Your task to perform on an android device: change the clock display to analog Image 0: 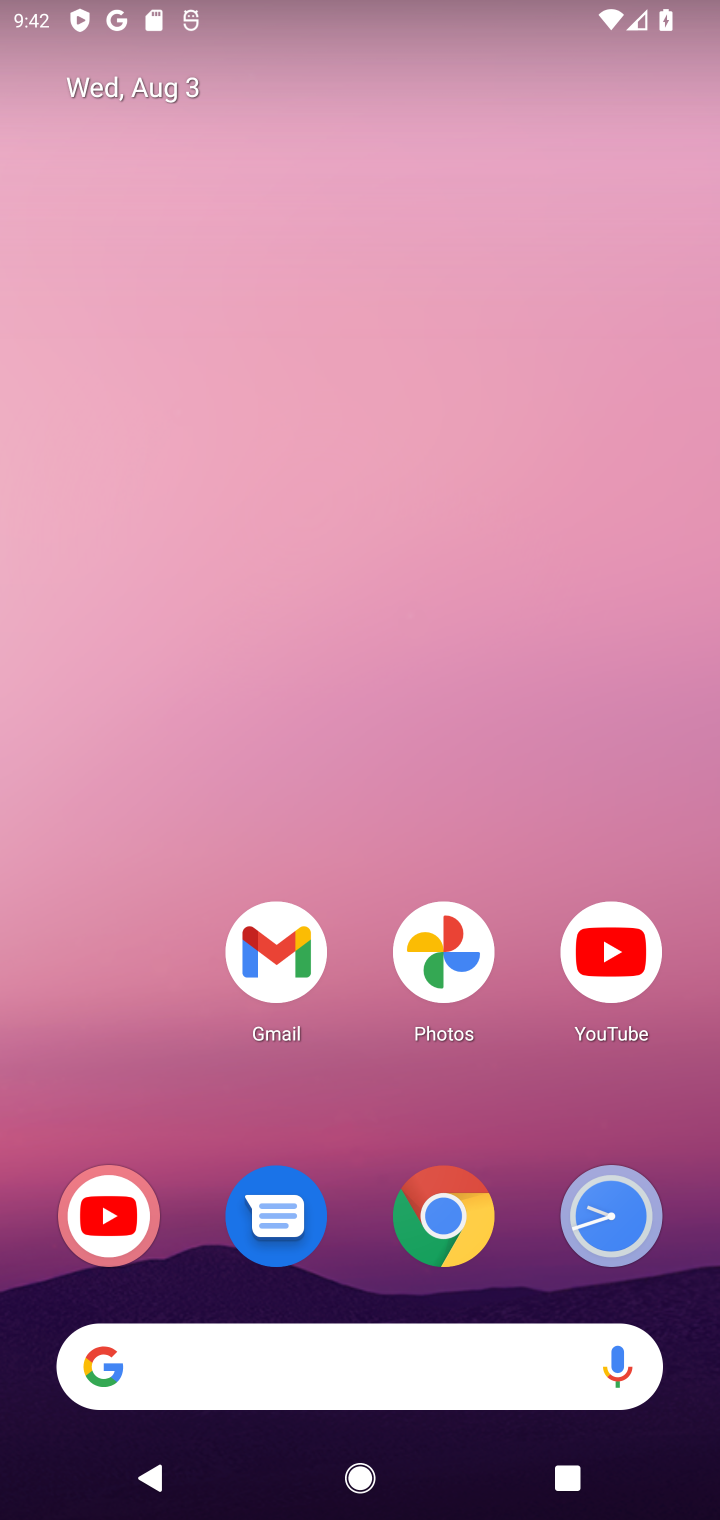
Step 0: click (595, 1205)
Your task to perform on an android device: change the clock display to analog Image 1: 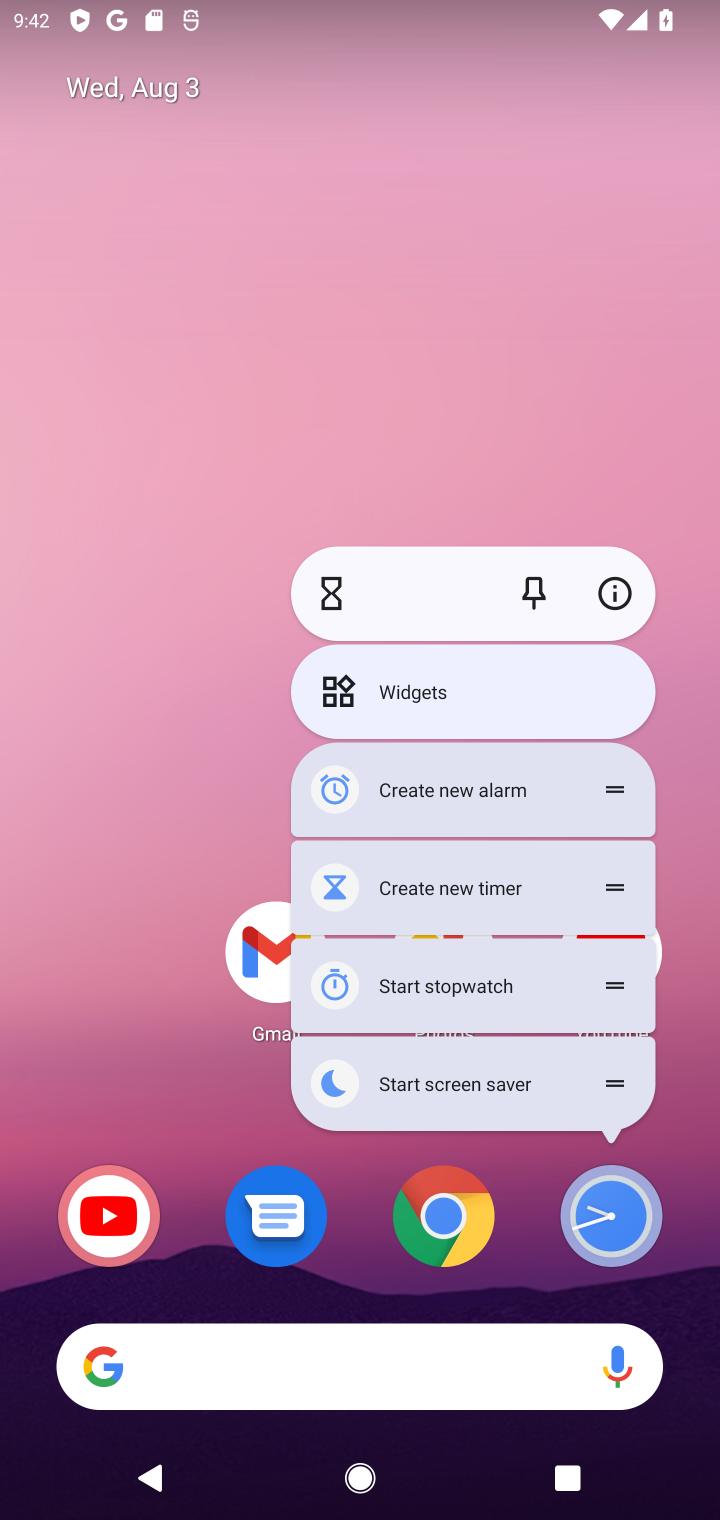
Step 1: click (605, 1216)
Your task to perform on an android device: change the clock display to analog Image 2: 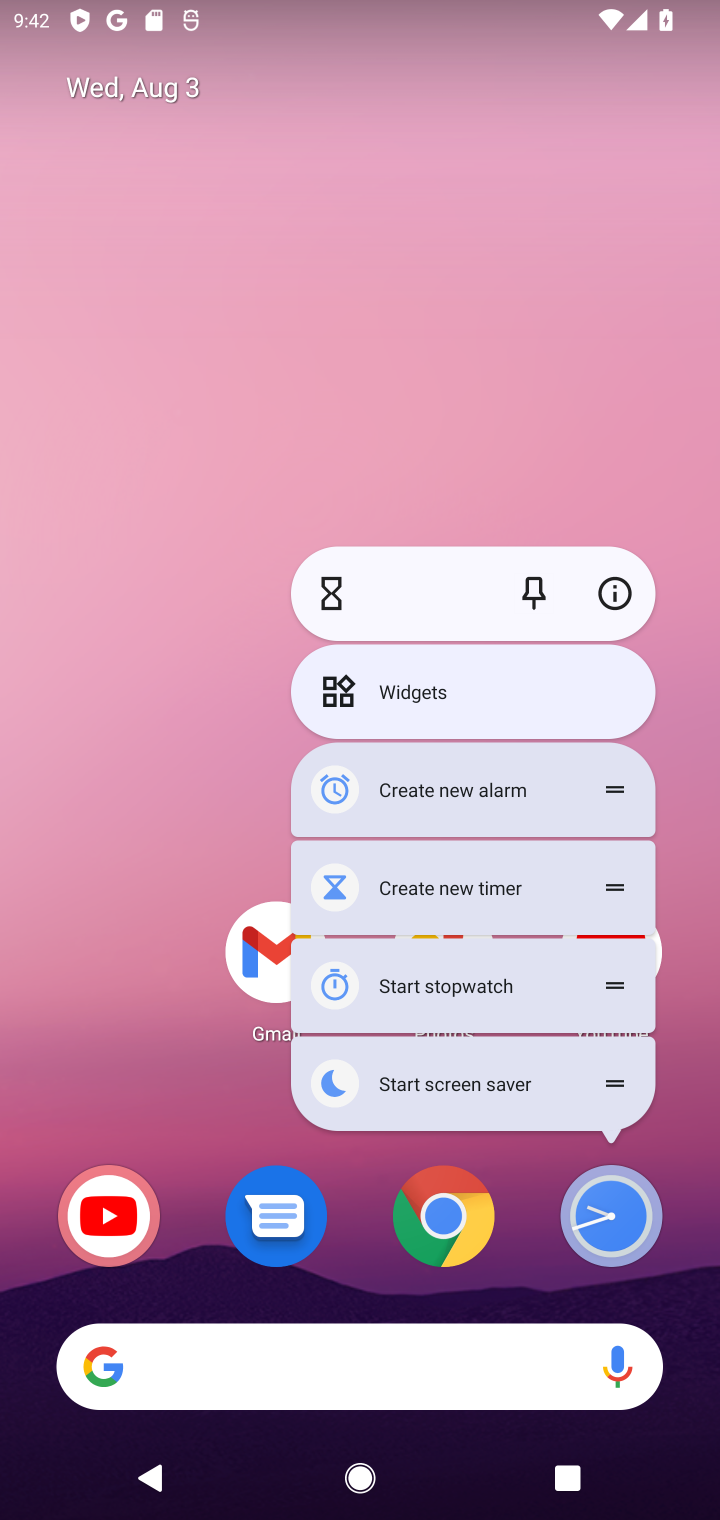
Step 2: click (605, 1216)
Your task to perform on an android device: change the clock display to analog Image 3: 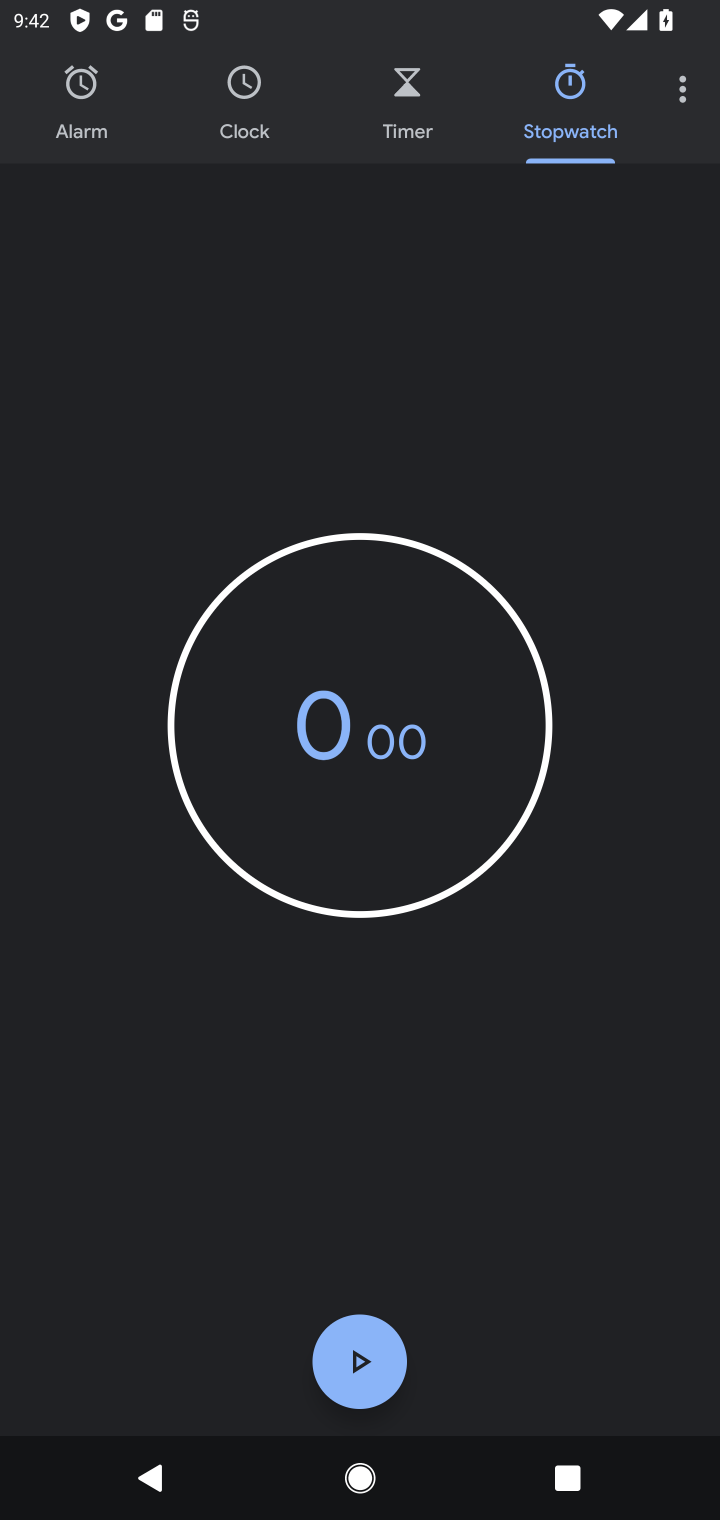
Step 3: click (684, 88)
Your task to perform on an android device: change the clock display to analog Image 4: 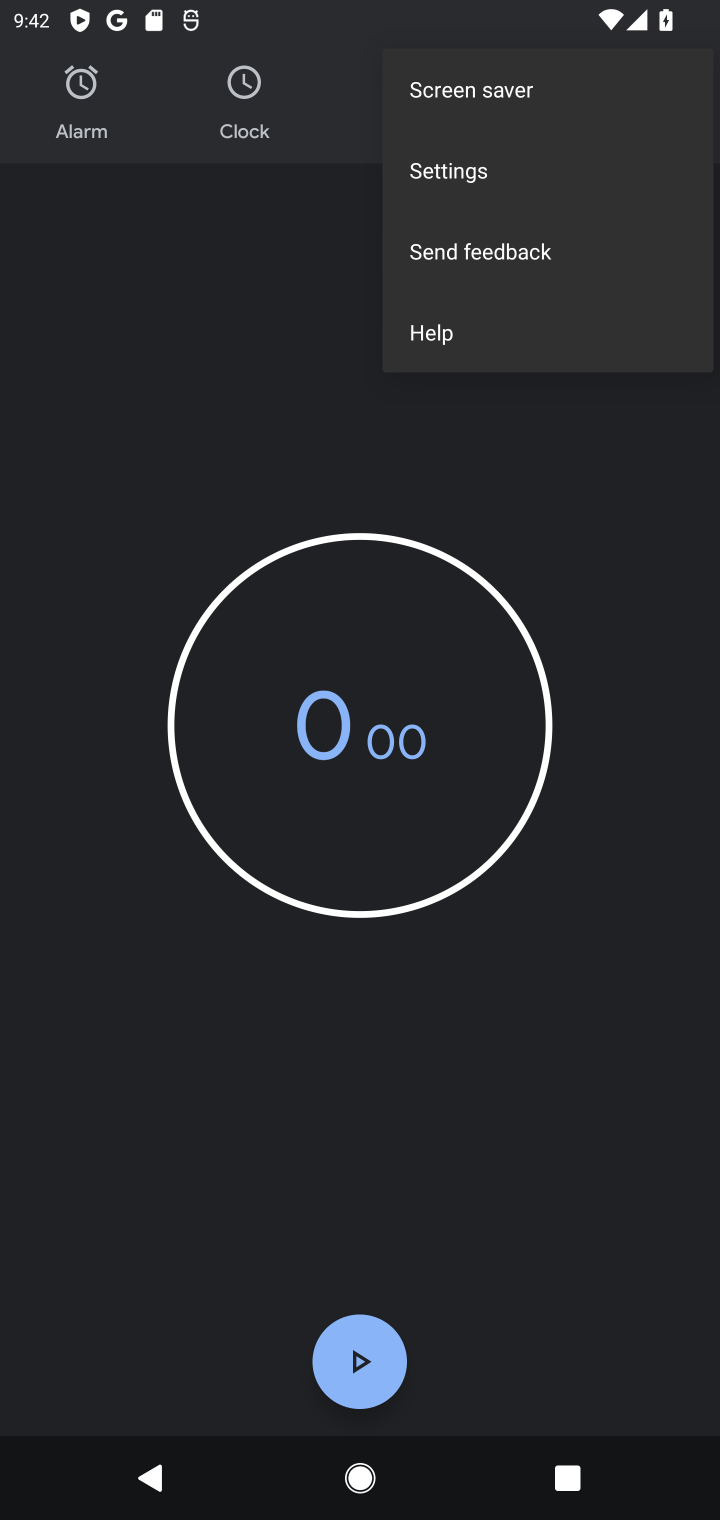
Step 4: click (418, 174)
Your task to perform on an android device: change the clock display to analog Image 5: 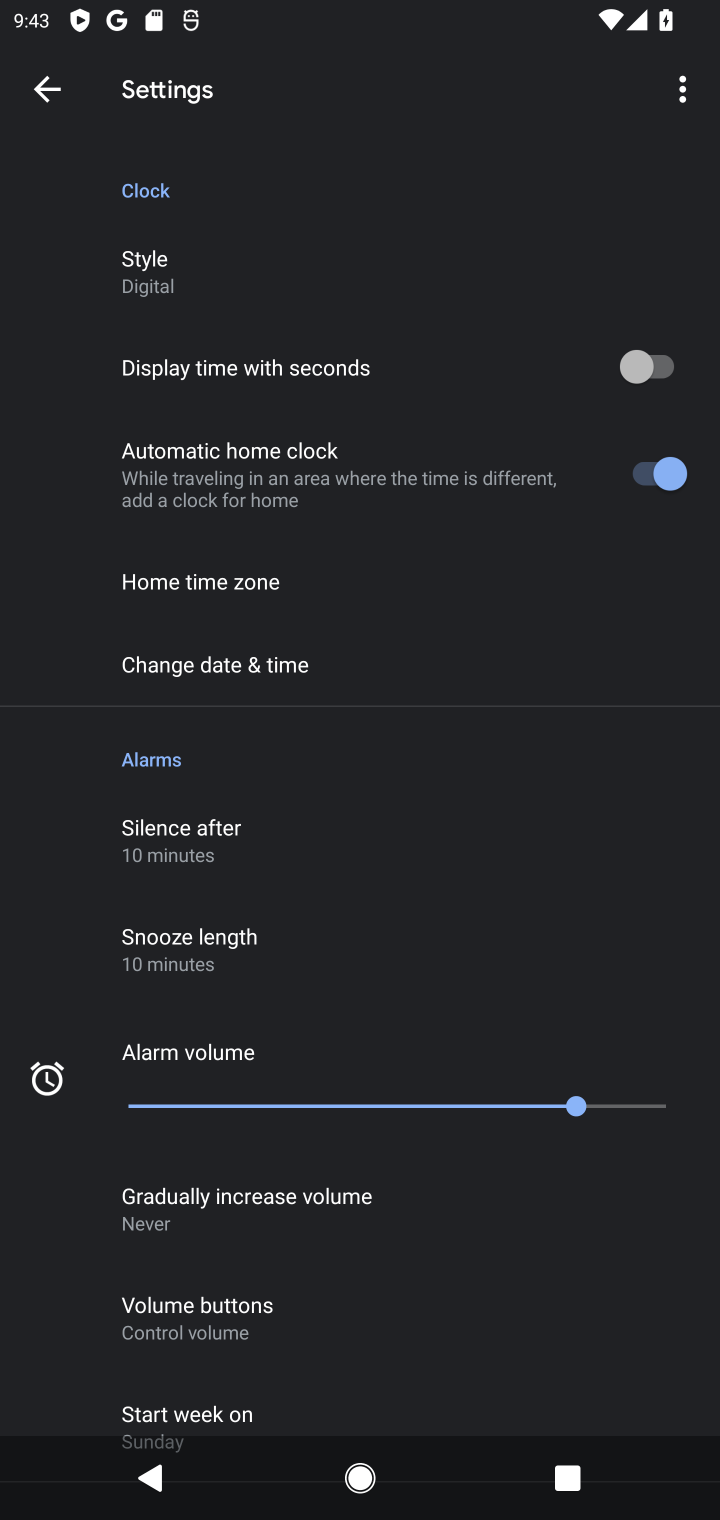
Step 5: click (242, 250)
Your task to perform on an android device: change the clock display to analog Image 6: 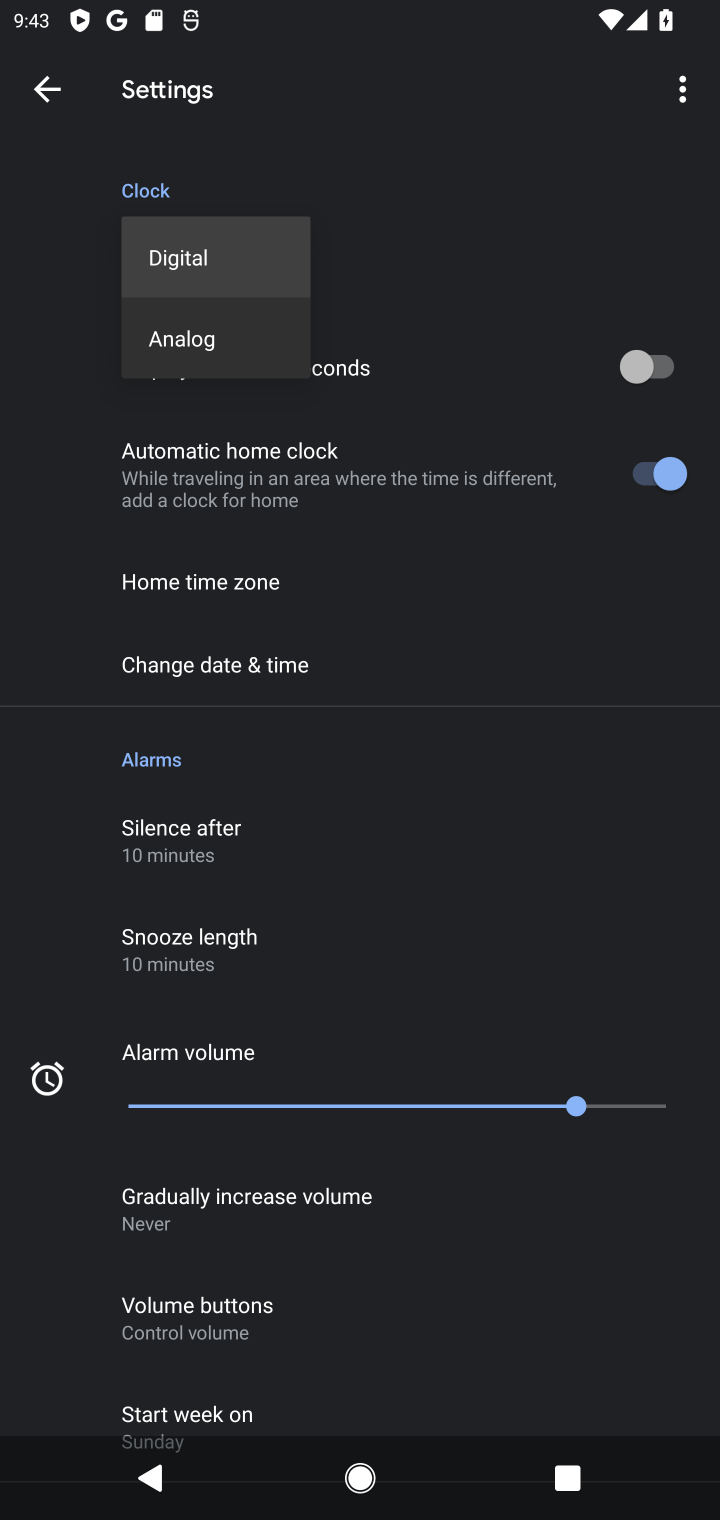
Step 6: click (179, 350)
Your task to perform on an android device: change the clock display to analog Image 7: 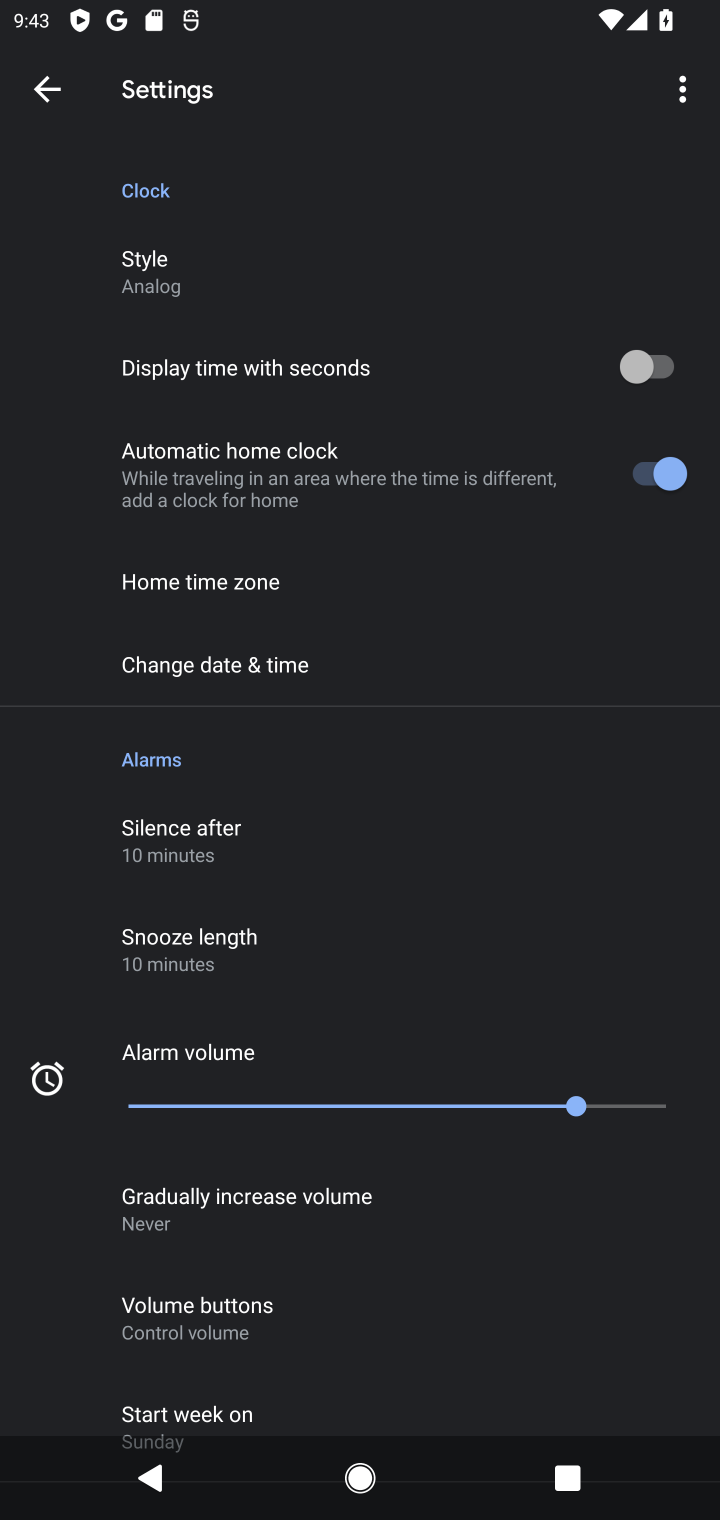
Step 7: task complete